Your task to perform on an android device: star an email in the gmail app Image 0: 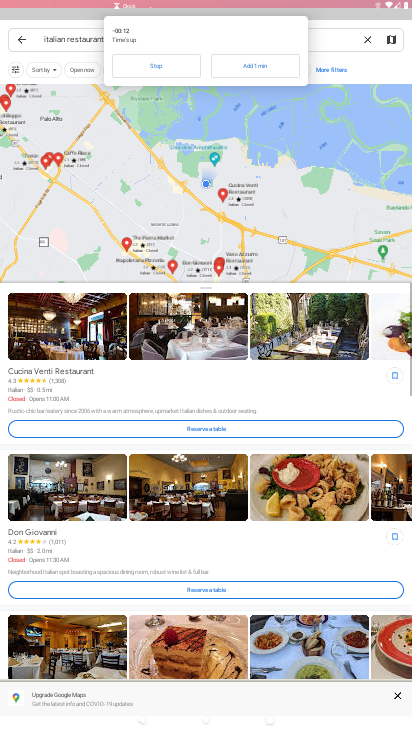
Step 0: click (165, 73)
Your task to perform on an android device: star an email in the gmail app Image 1: 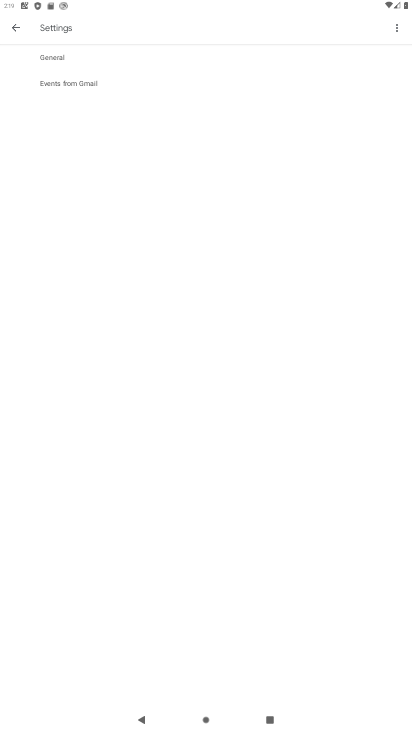
Step 1: press home button
Your task to perform on an android device: star an email in the gmail app Image 2: 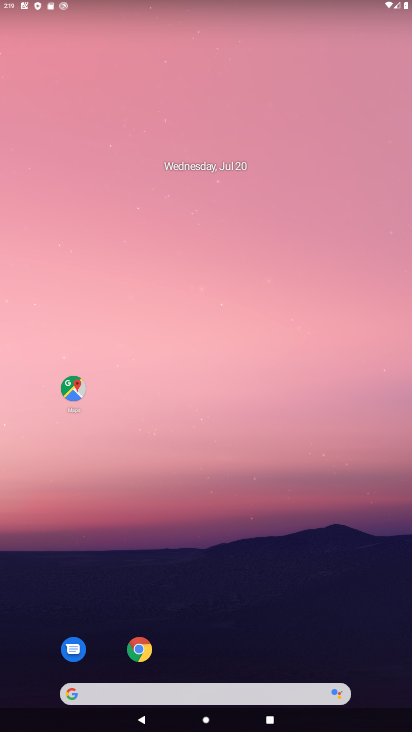
Step 2: drag from (194, 628) to (246, 118)
Your task to perform on an android device: star an email in the gmail app Image 3: 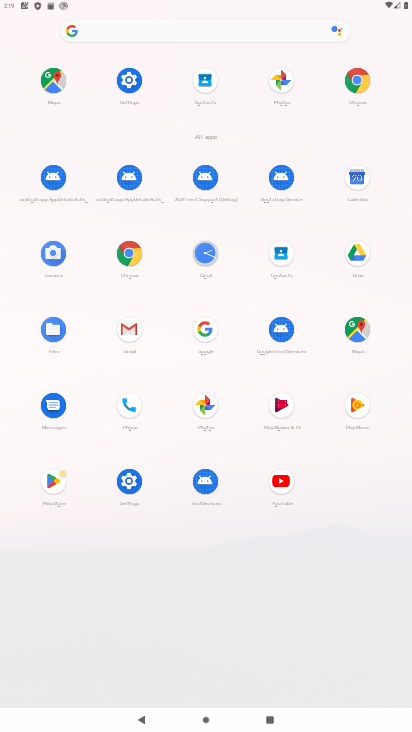
Step 3: click (129, 325)
Your task to perform on an android device: star an email in the gmail app Image 4: 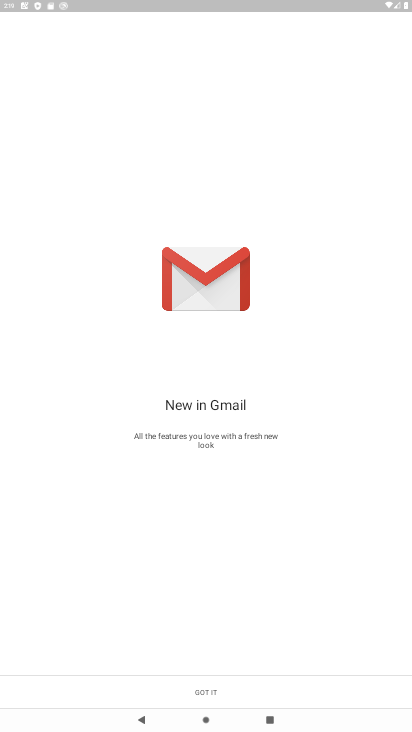
Step 4: click (222, 687)
Your task to perform on an android device: star an email in the gmail app Image 5: 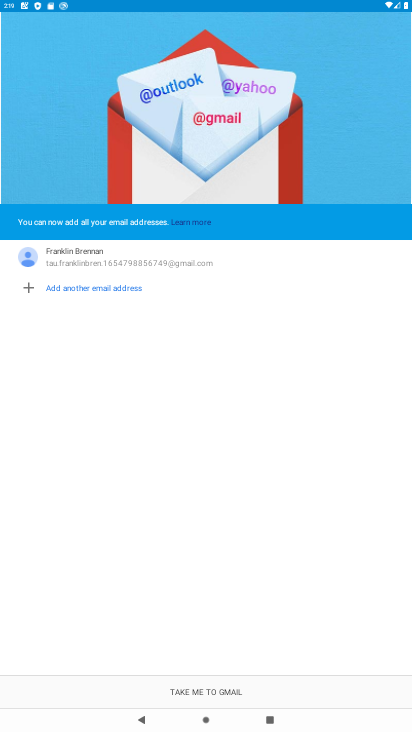
Step 5: click (222, 687)
Your task to perform on an android device: star an email in the gmail app Image 6: 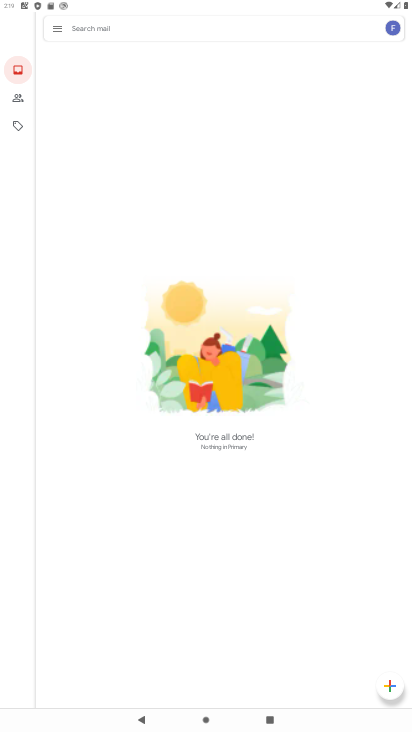
Step 6: task complete